Your task to perform on an android device: What's the weather like in Mumbai? Image 0: 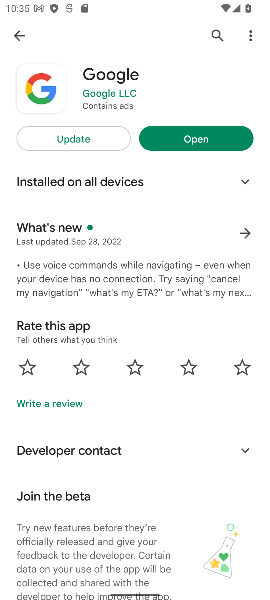
Step 0: press home button
Your task to perform on an android device: What's the weather like in Mumbai? Image 1: 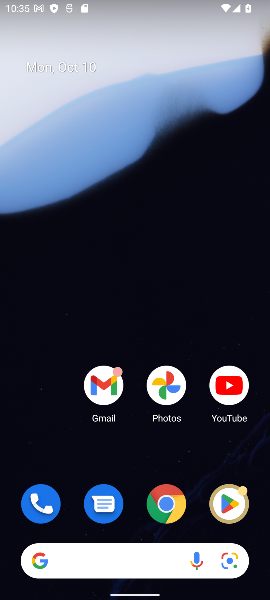
Step 1: click (162, 500)
Your task to perform on an android device: What's the weather like in Mumbai? Image 2: 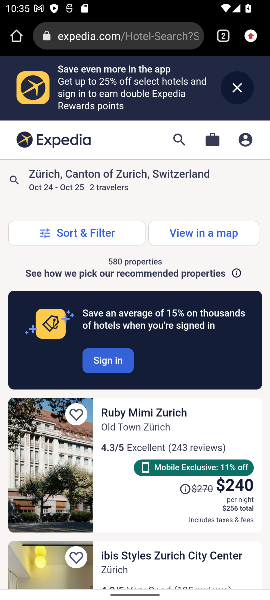
Step 2: click (129, 27)
Your task to perform on an android device: What's the weather like in Mumbai? Image 3: 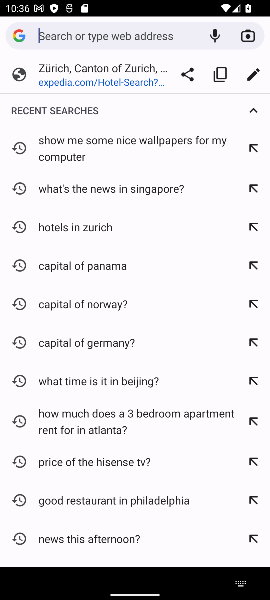
Step 3: type "weather in mumbai"
Your task to perform on an android device: What's the weather like in Mumbai? Image 4: 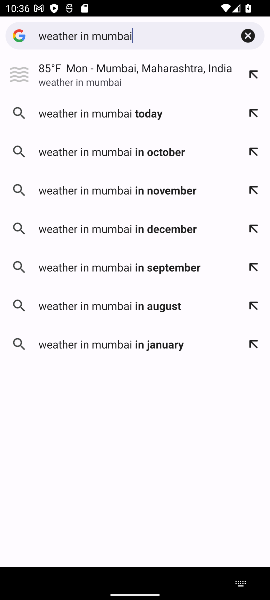
Step 4: click (100, 115)
Your task to perform on an android device: What's the weather like in Mumbai? Image 5: 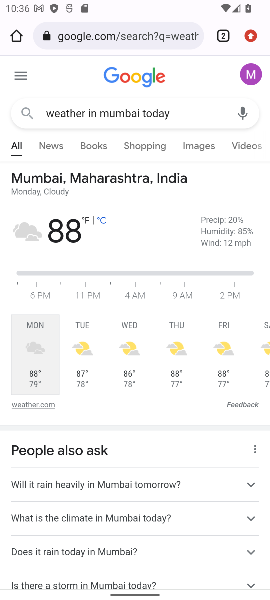
Step 5: task complete